Your task to perform on an android device: turn off wifi Image 0: 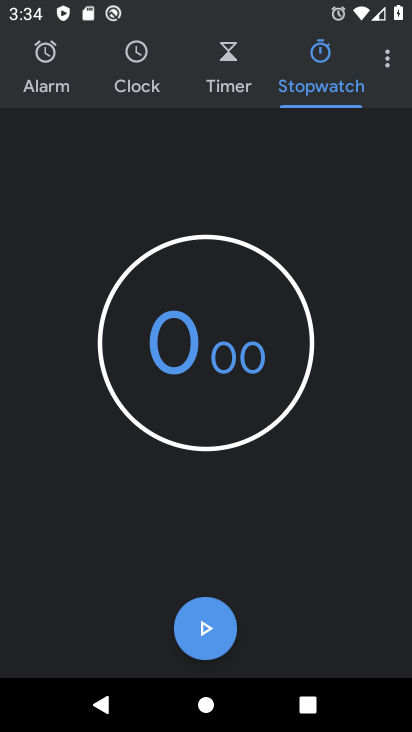
Step 0: drag from (216, 595) to (222, 207)
Your task to perform on an android device: turn off wifi Image 1: 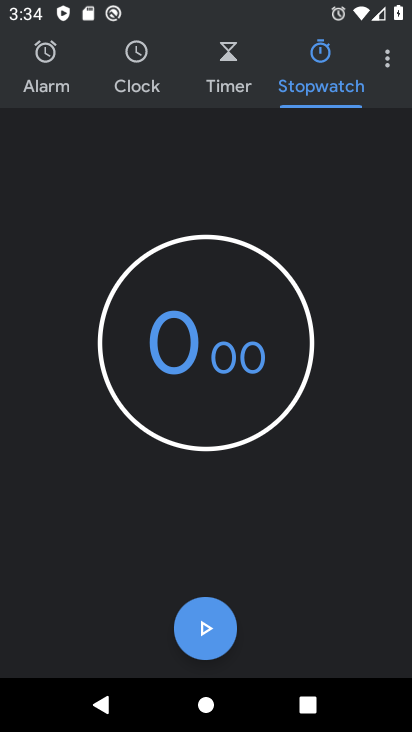
Step 1: press home button
Your task to perform on an android device: turn off wifi Image 2: 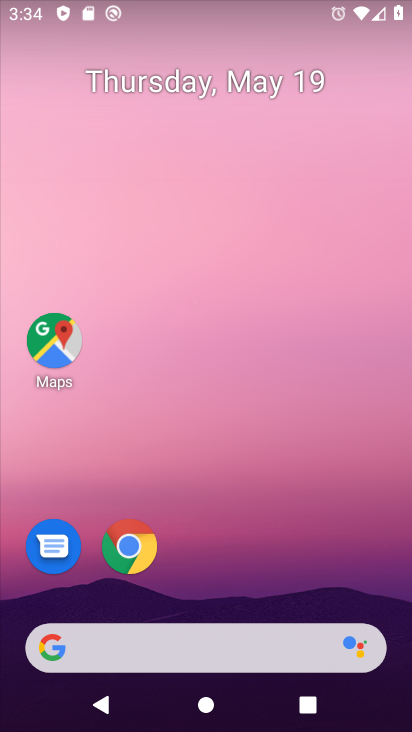
Step 2: drag from (207, 605) to (222, 85)
Your task to perform on an android device: turn off wifi Image 3: 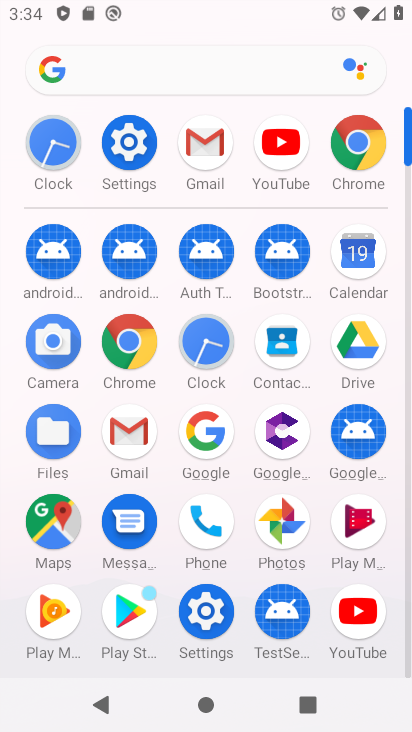
Step 3: drag from (179, 4) to (188, 605)
Your task to perform on an android device: turn off wifi Image 4: 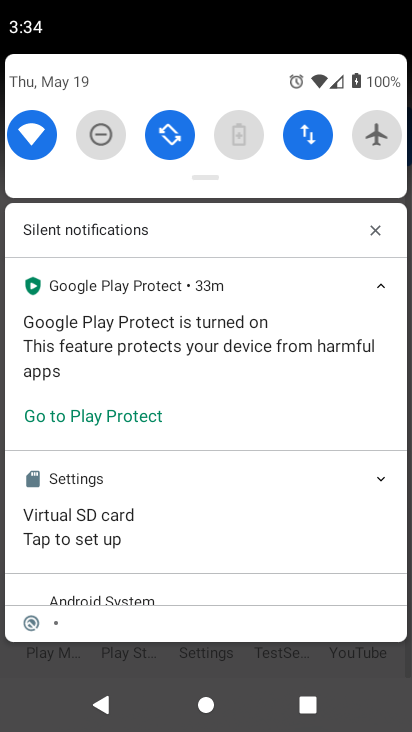
Step 4: click (36, 137)
Your task to perform on an android device: turn off wifi Image 5: 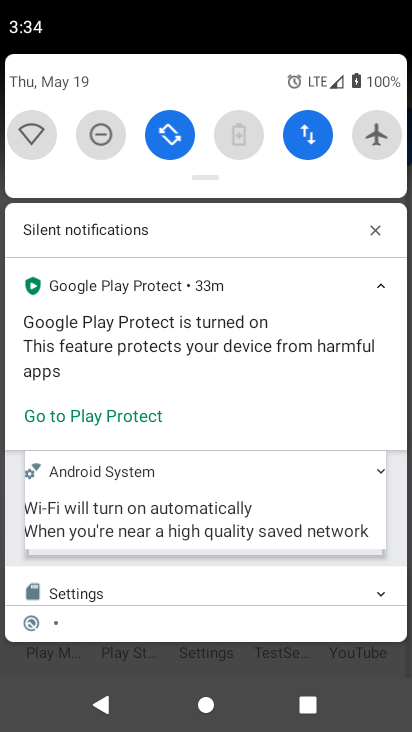
Step 5: task complete